Your task to perform on an android device: Open calendar and show me the second week of next month Image 0: 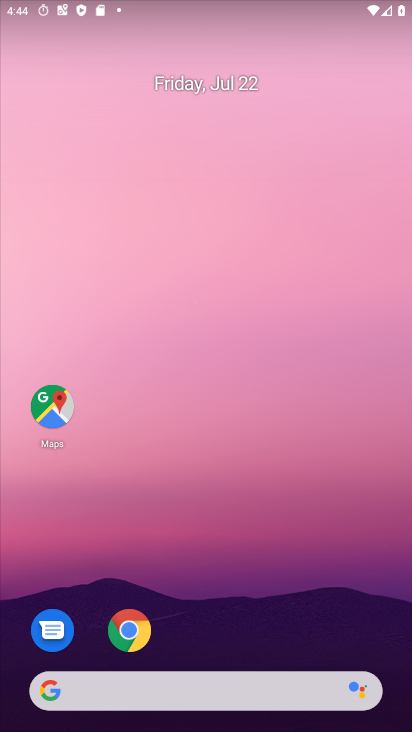
Step 0: drag from (231, 637) to (407, 632)
Your task to perform on an android device: Open calendar and show me the second week of next month Image 1: 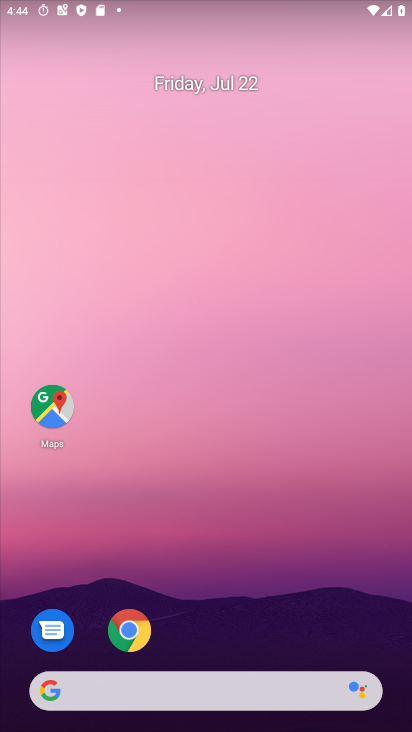
Step 1: drag from (294, 708) to (334, 48)
Your task to perform on an android device: Open calendar and show me the second week of next month Image 2: 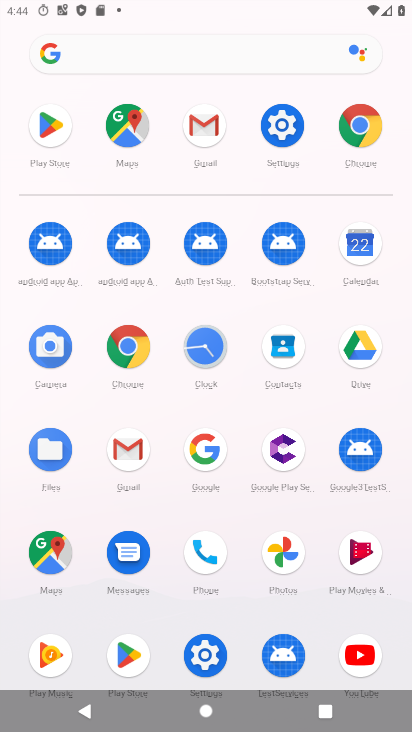
Step 2: click (358, 239)
Your task to perform on an android device: Open calendar and show me the second week of next month Image 3: 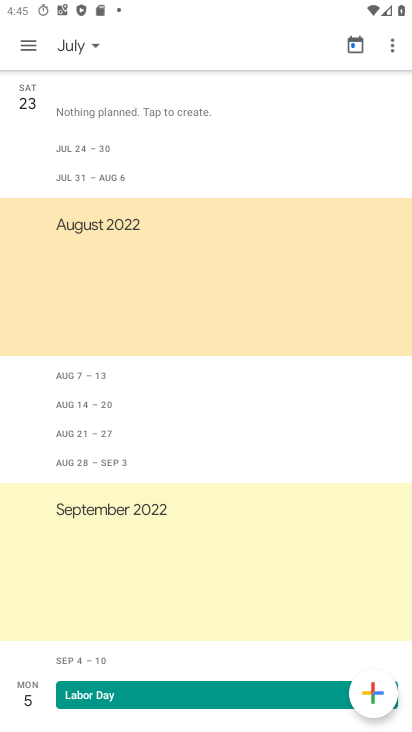
Step 3: click (97, 42)
Your task to perform on an android device: Open calendar and show me the second week of next month Image 4: 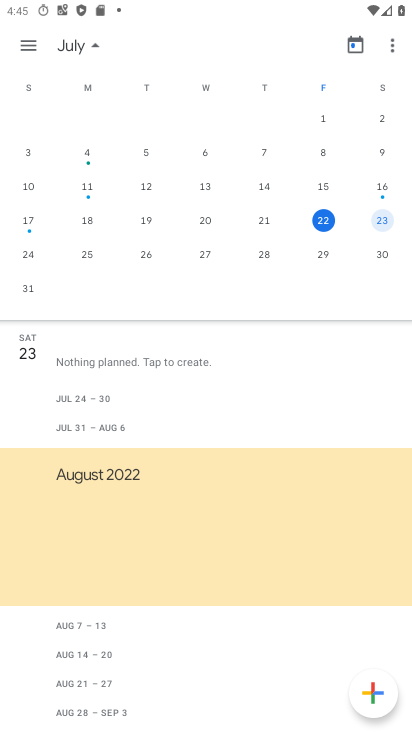
Step 4: drag from (337, 210) to (33, 227)
Your task to perform on an android device: Open calendar and show me the second week of next month Image 5: 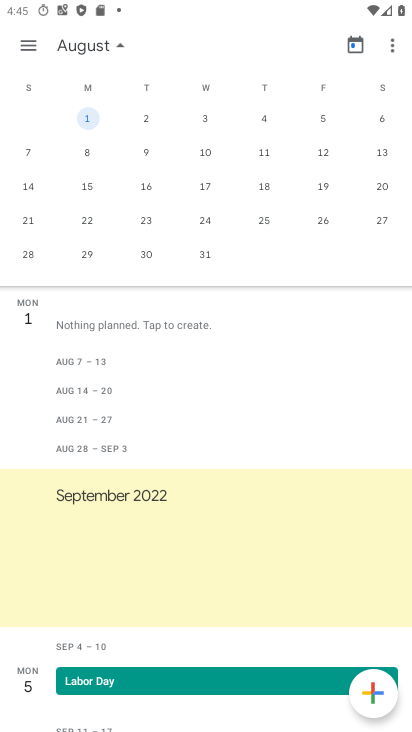
Step 5: click (208, 152)
Your task to perform on an android device: Open calendar and show me the second week of next month Image 6: 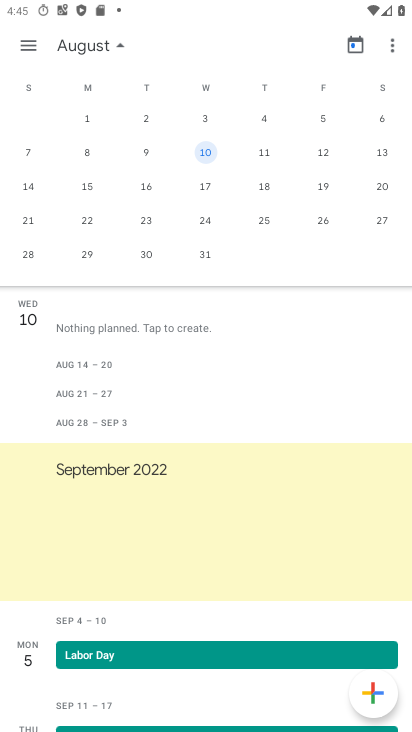
Step 6: click (38, 39)
Your task to perform on an android device: Open calendar and show me the second week of next month Image 7: 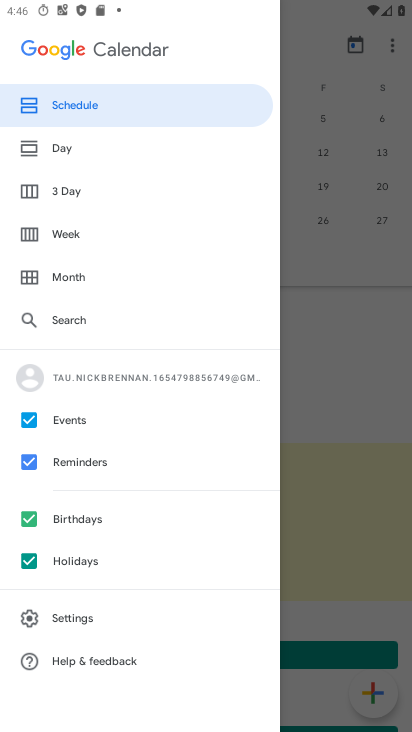
Step 7: click (311, 253)
Your task to perform on an android device: Open calendar and show me the second week of next month Image 8: 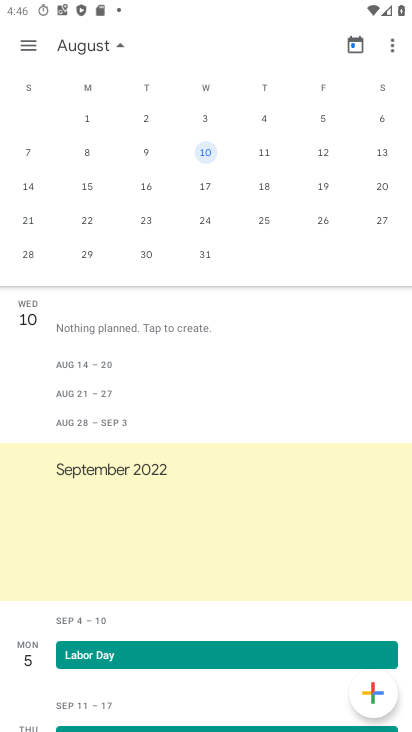
Step 8: click (22, 45)
Your task to perform on an android device: Open calendar and show me the second week of next month Image 9: 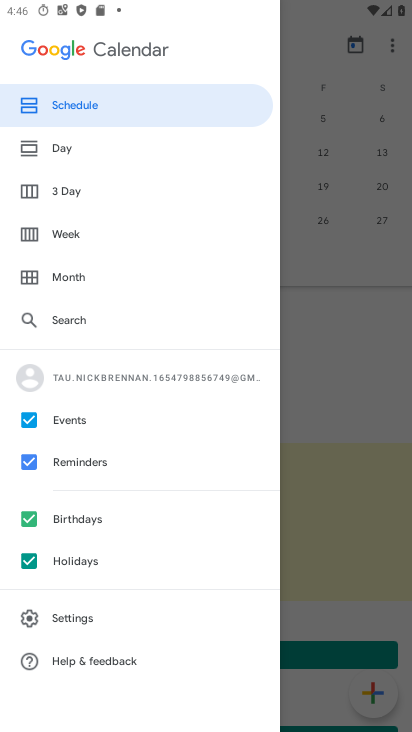
Step 9: click (79, 241)
Your task to perform on an android device: Open calendar and show me the second week of next month Image 10: 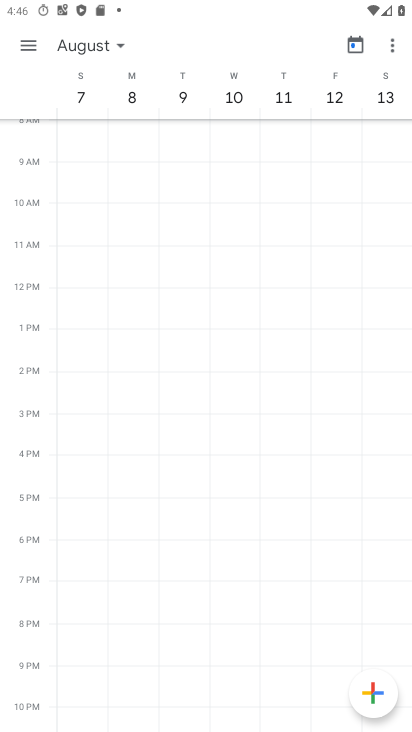
Step 10: task complete